Your task to perform on an android device: delete the emails in spam in the gmail app Image 0: 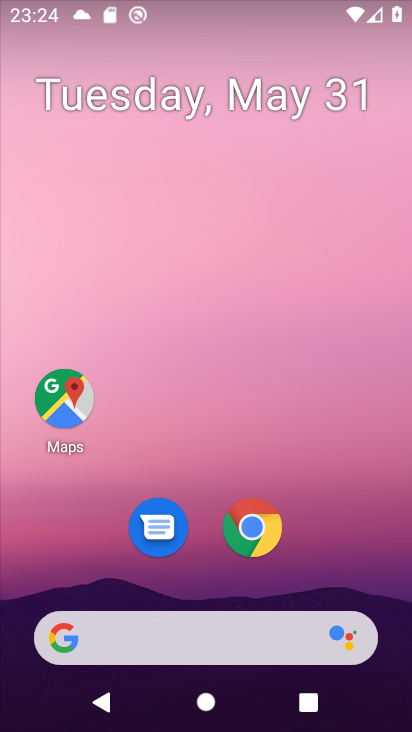
Step 0: drag from (375, 558) to (281, 77)
Your task to perform on an android device: delete the emails in spam in the gmail app Image 1: 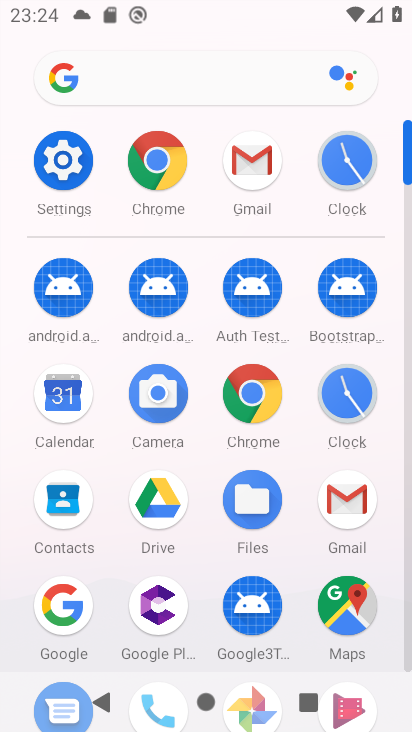
Step 1: click (249, 164)
Your task to perform on an android device: delete the emails in spam in the gmail app Image 2: 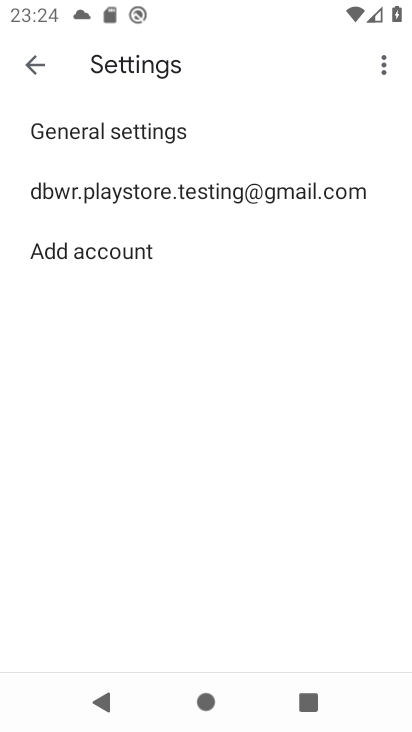
Step 2: click (34, 68)
Your task to perform on an android device: delete the emails in spam in the gmail app Image 3: 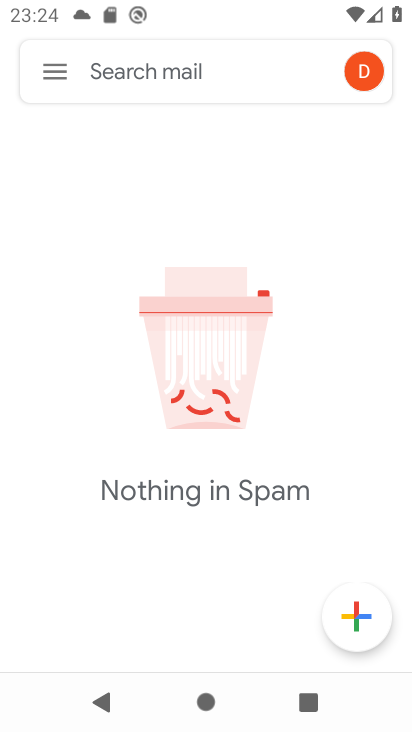
Step 3: click (63, 70)
Your task to perform on an android device: delete the emails in spam in the gmail app Image 4: 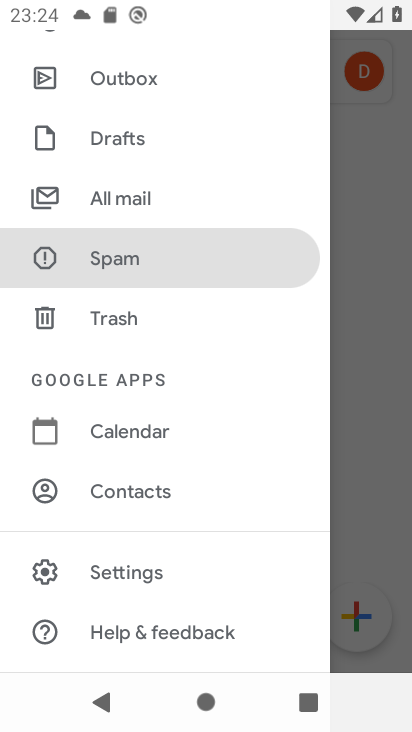
Step 4: click (158, 255)
Your task to perform on an android device: delete the emails in spam in the gmail app Image 5: 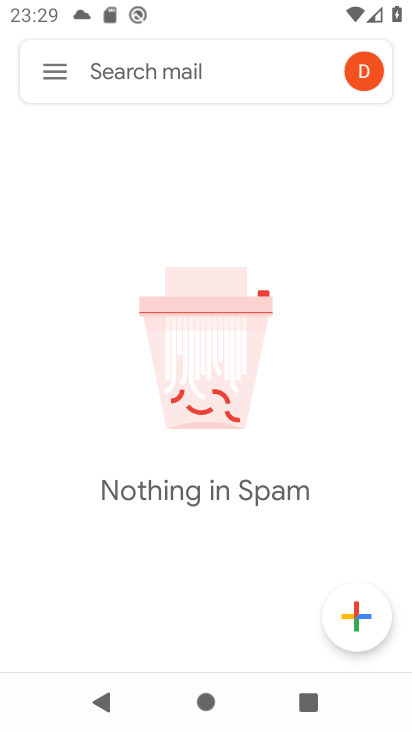
Step 5: task complete